Your task to perform on an android device: delete the emails in spam in the gmail app Image 0: 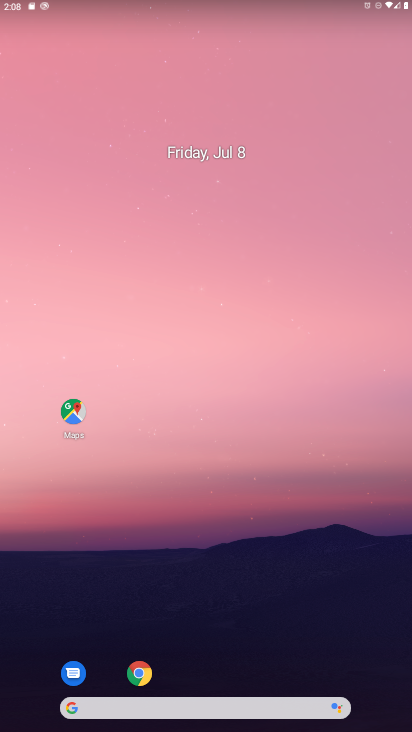
Step 0: drag from (373, 634) to (319, 72)
Your task to perform on an android device: delete the emails in spam in the gmail app Image 1: 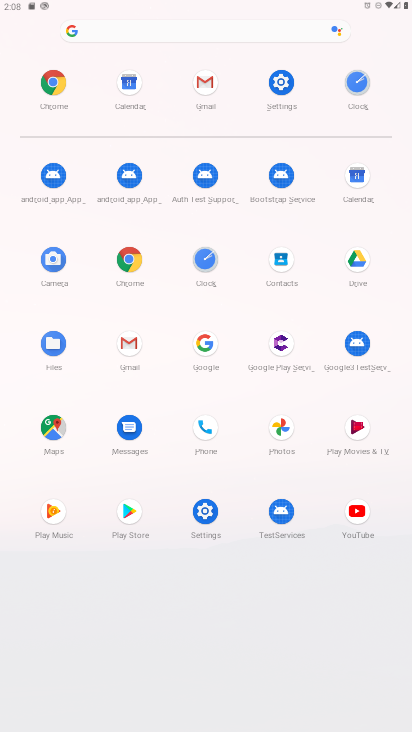
Step 1: click (135, 346)
Your task to perform on an android device: delete the emails in spam in the gmail app Image 2: 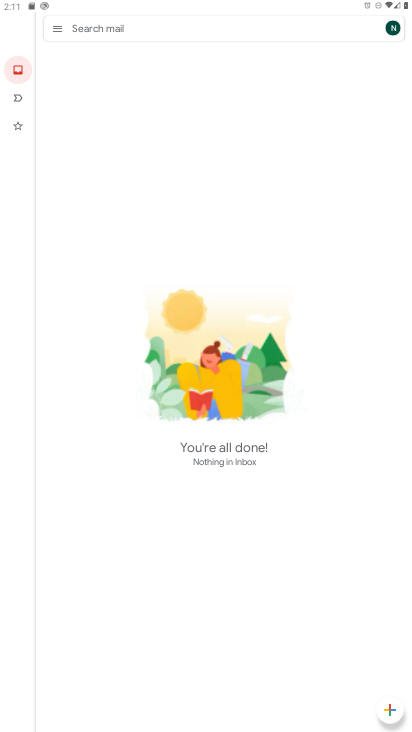
Step 2: task complete